Your task to perform on an android device: Open Chrome and go to settings Image 0: 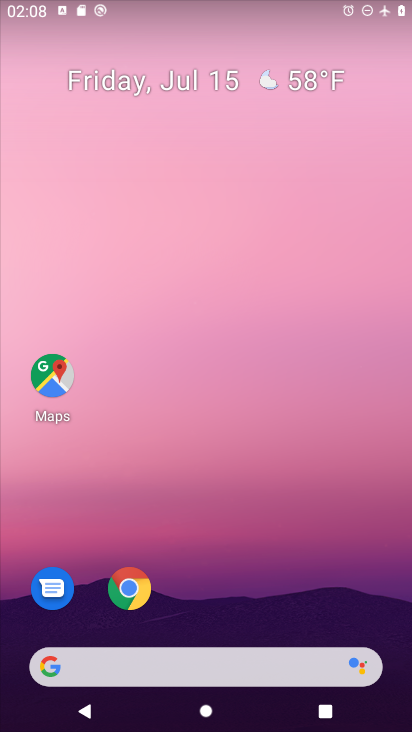
Step 0: click (131, 586)
Your task to perform on an android device: Open Chrome and go to settings Image 1: 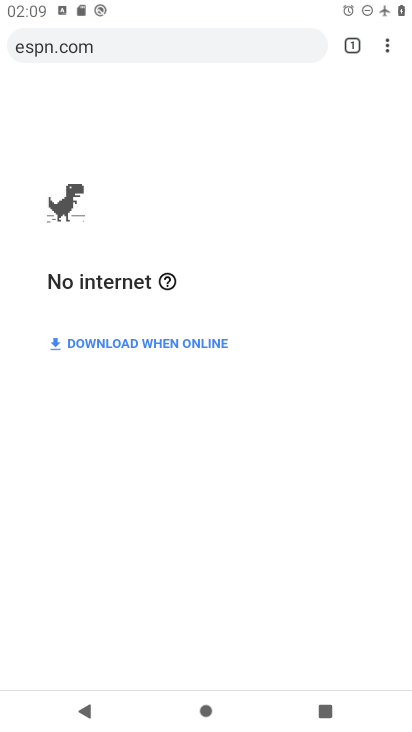
Step 1: click (386, 48)
Your task to perform on an android device: Open Chrome and go to settings Image 2: 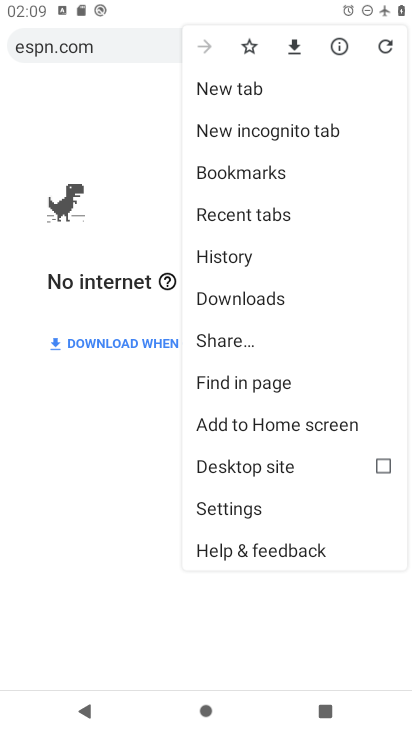
Step 2: click (218, 512)
Your task to perform on an android device: Open Chrome and go to settings Image 3: 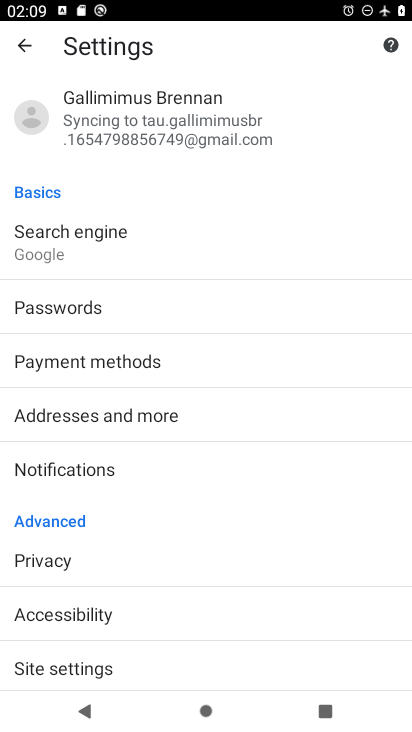
Step 3: task complete